Your task to perform on an android device: Open Chrome and go to settings Image 0: 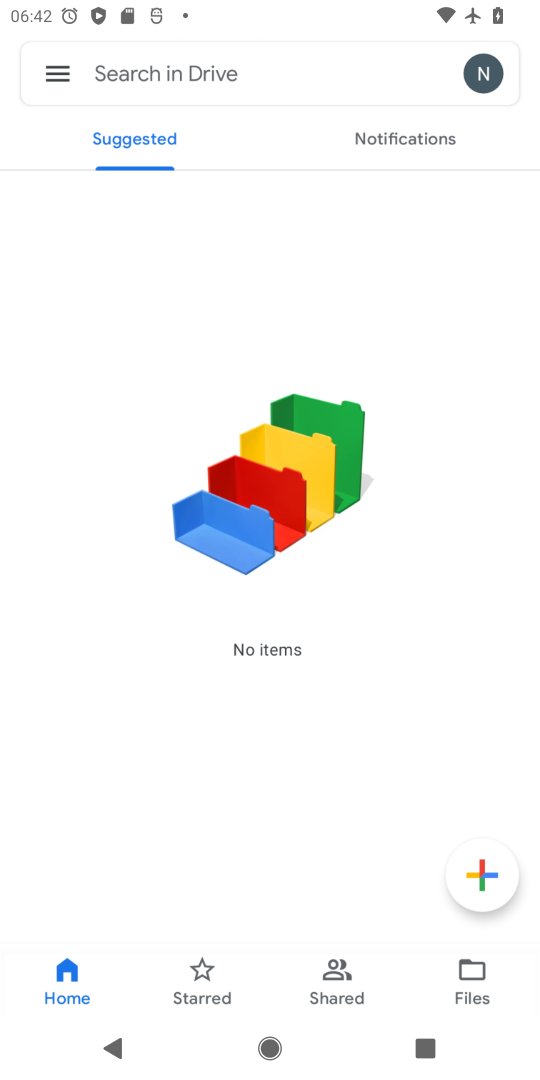
Step 0: press home button
Your task to perform on an android device: Open Chrome and go to settings Image 1: 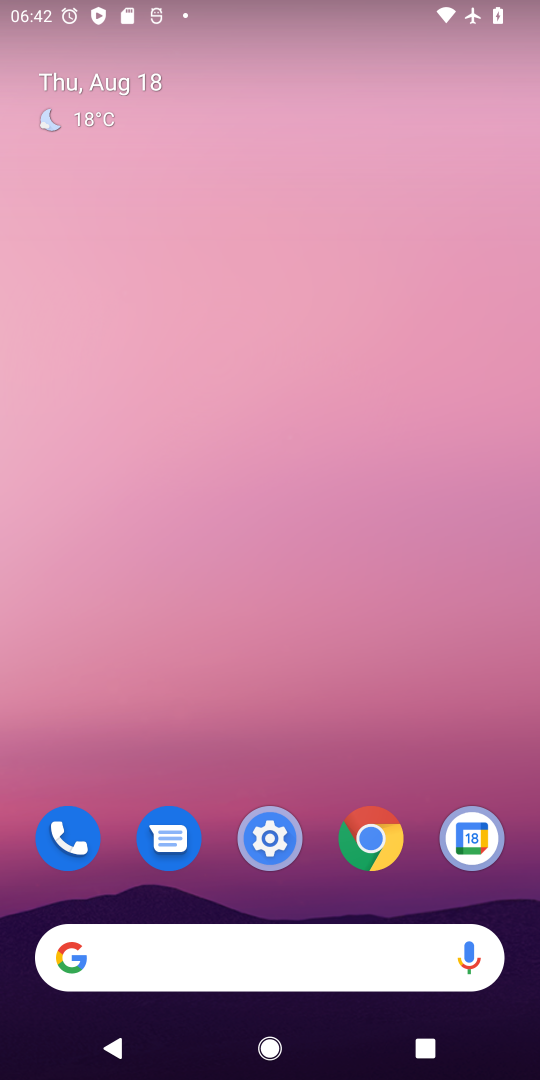
Step 1: click (374, 844)
Your task to perform on an android device: Open Chrome and go to settings Image 2: 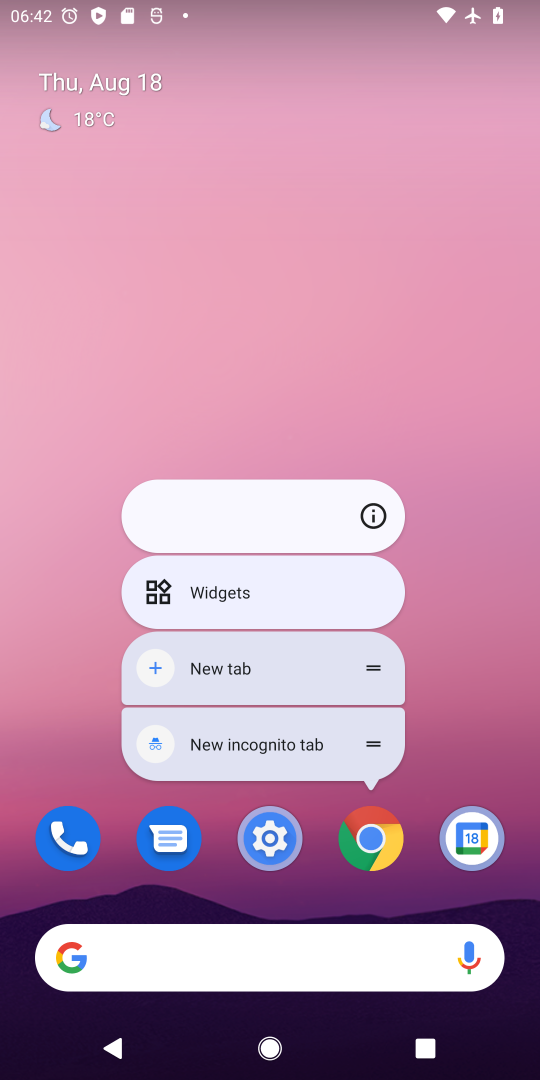
Step 2: click (374, 844)
Your task to perform on an android device: Open Chrome and go to settings Image 3: 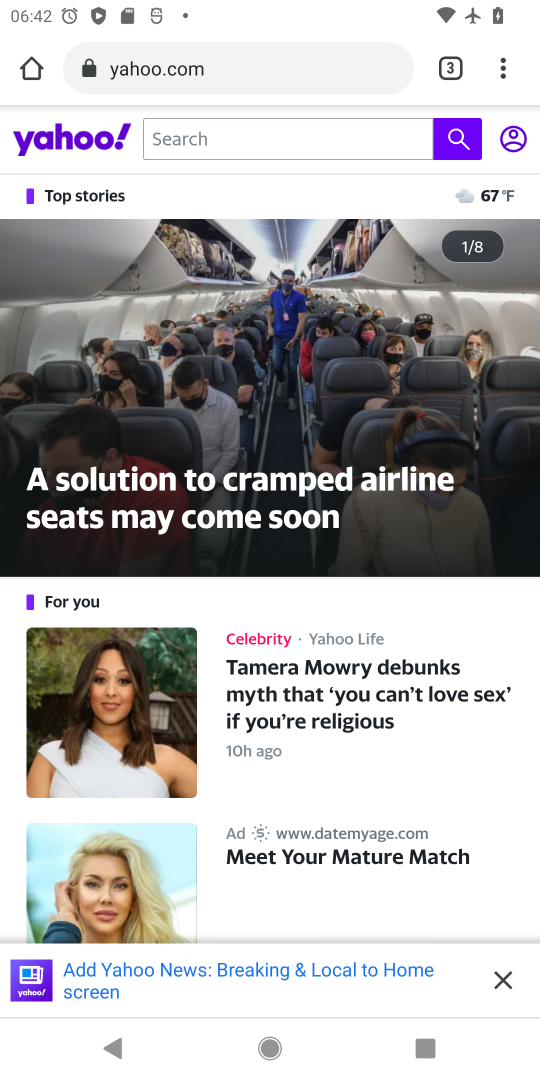
Step 3: task complete